Your task to perform on an android device: stop showing notifications on the lock screen Image 0: 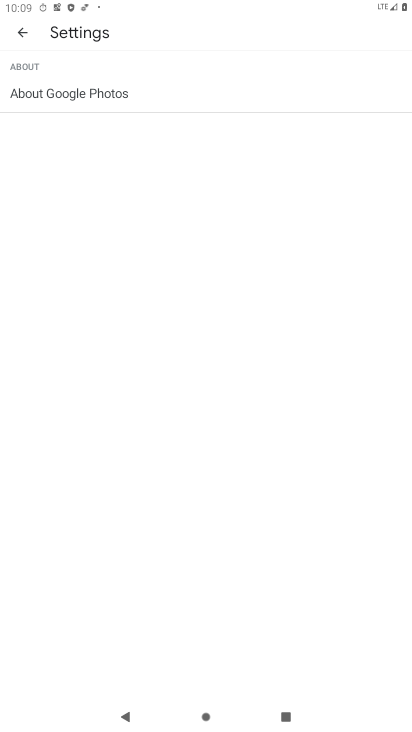
Step 0: press home button
Your task to perform on an android device: stop showing notifications on the lock screen Image 1: 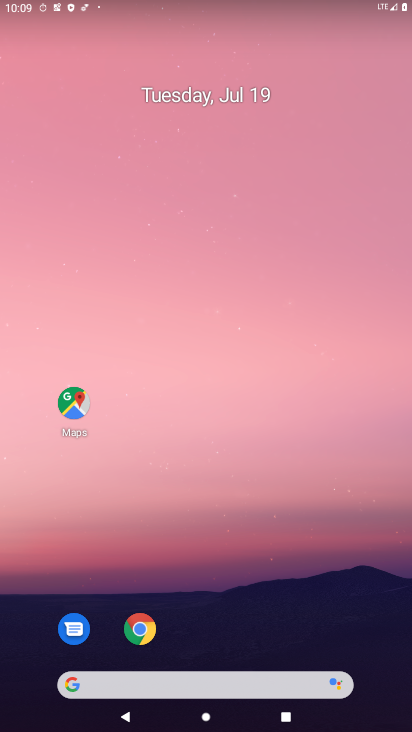
Step 1: drag from (238, 648) to (294, 21)
Your task to perform on an android device: stop showing notifications on the lock screen Image 2: 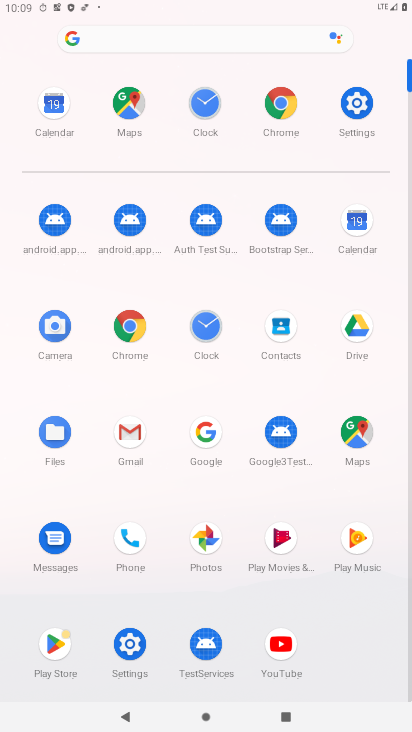
Step 2: click (136, 649)
Your task to perform on an android device: stop showing notifications on the lock screen Image 3: 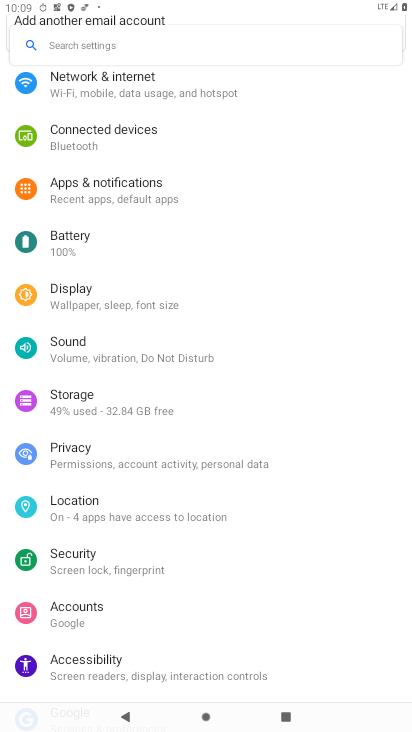
Step 3: click (146, 192)
Your task to perform on an android device: stop showing notifications on the lock screen Image 4: 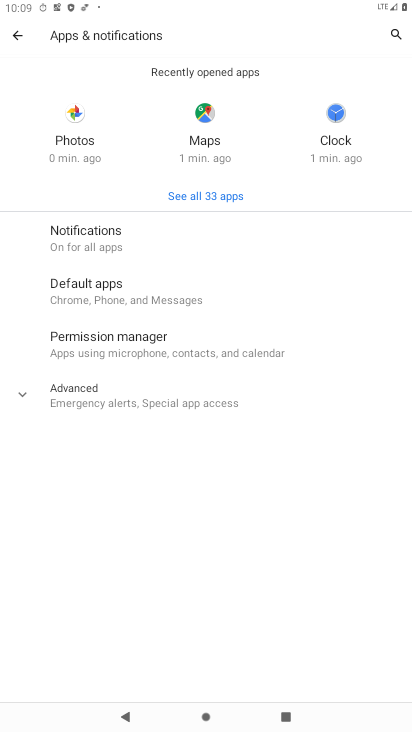
Step 4: click (120, 243)
Your task to perform on an android device: stop showing notifications on the lock screen Image 5: 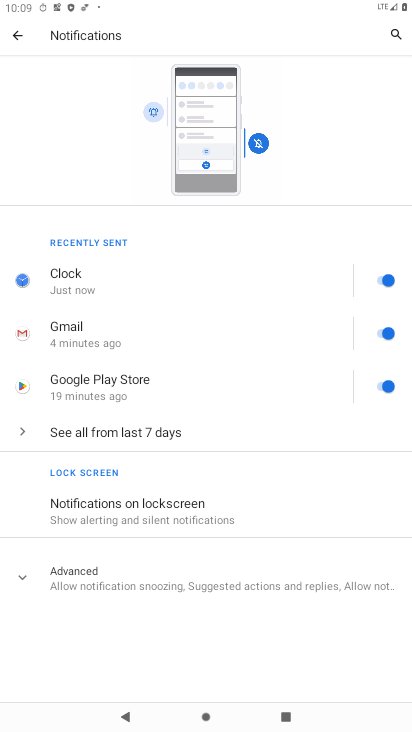
Step 5: click (148, 512)
Your task to perform on an android device: stop showing notifications on the lock screen Image 6: 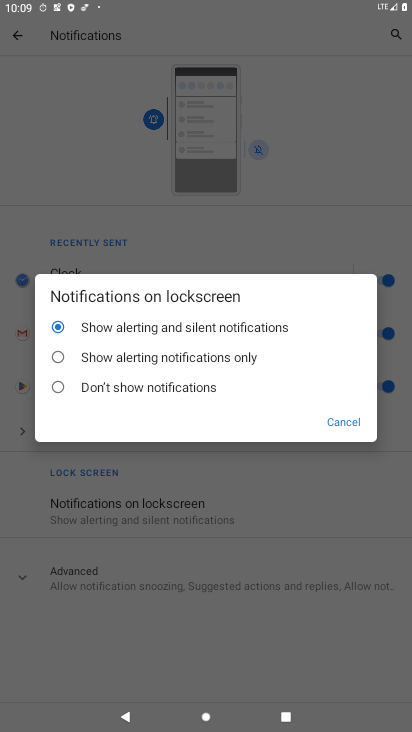
Step 6: click (94, 388)
Your task to perform on an android device: stop showing notifications on the lock screen Image 7: 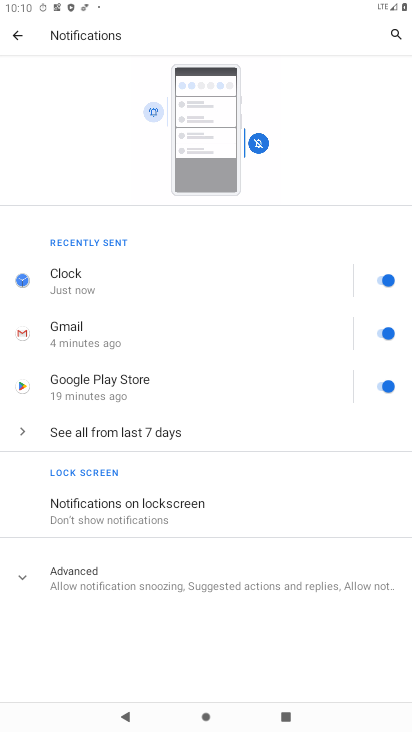
Step 7: task complete